Your task to perform on an android device: Turn off the flashlight Image 0: 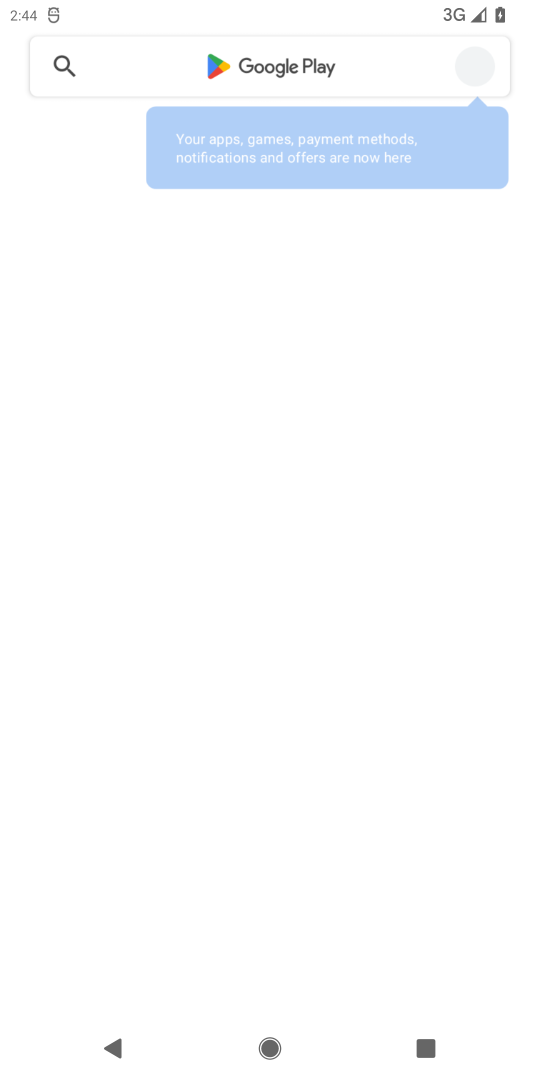
Step 0: press home button
Your task to perform on an android device: Turn off the flashlight Image 1: 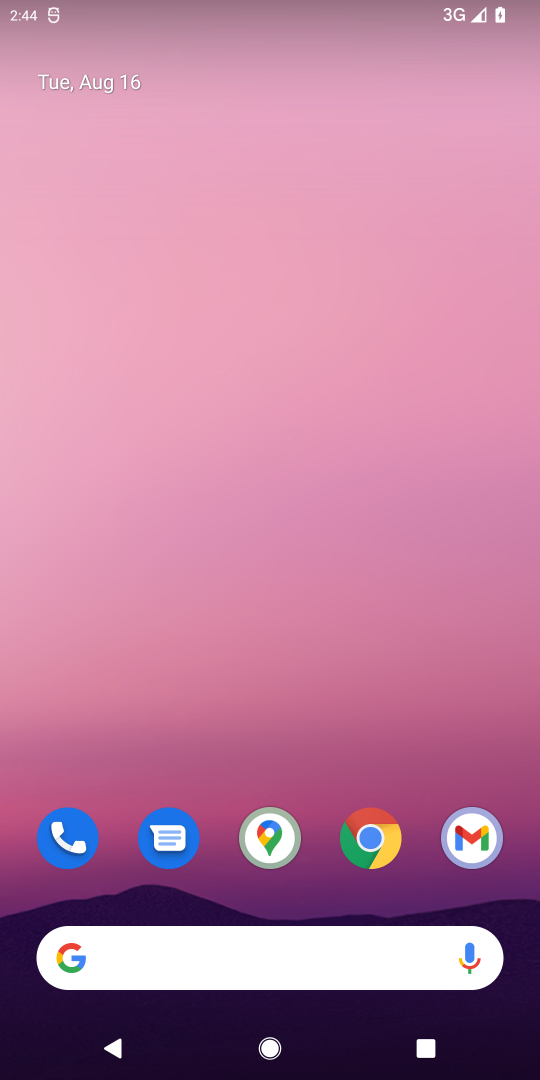
Step 1: drag from (318, 32) to (274, 688)
Your task to perform on an android device: Turn off the flashlight Image 2: 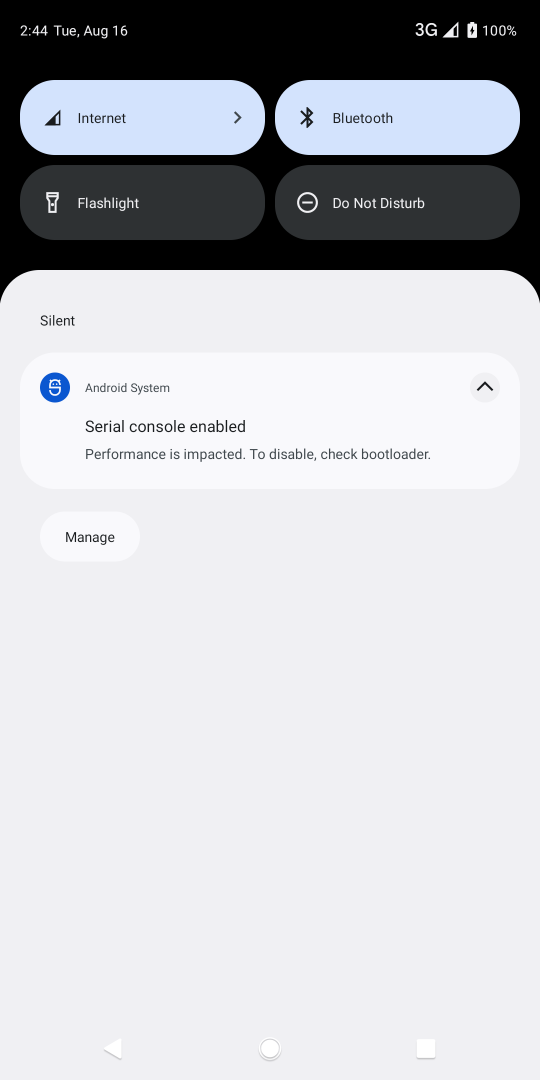
Step 2: click (136, 202)
Your task to perform on an android device: Turn off the flashlight Image 3: 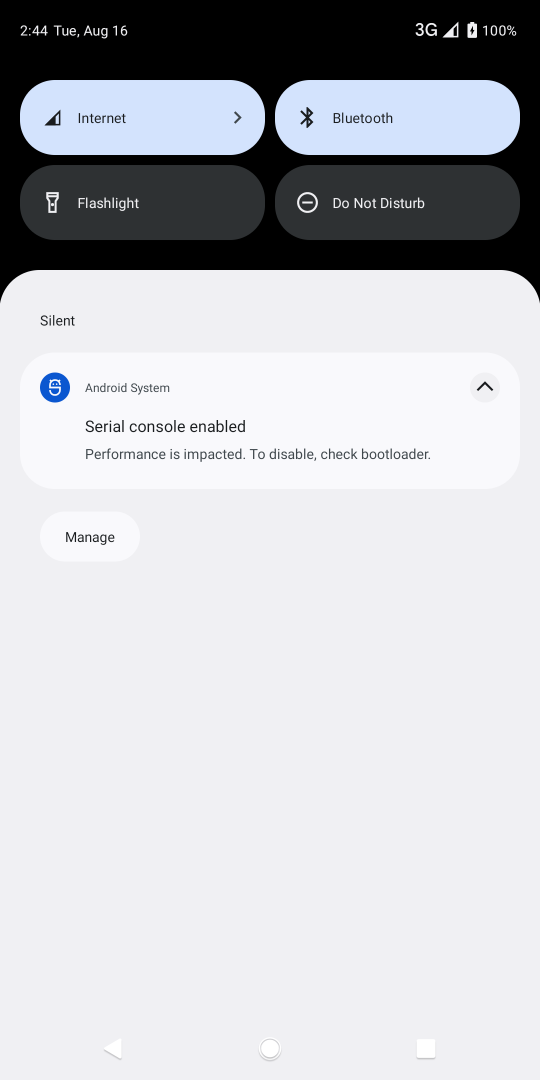
Step 3: task complete